Your task to perform on an android device: Open settings Image 0: 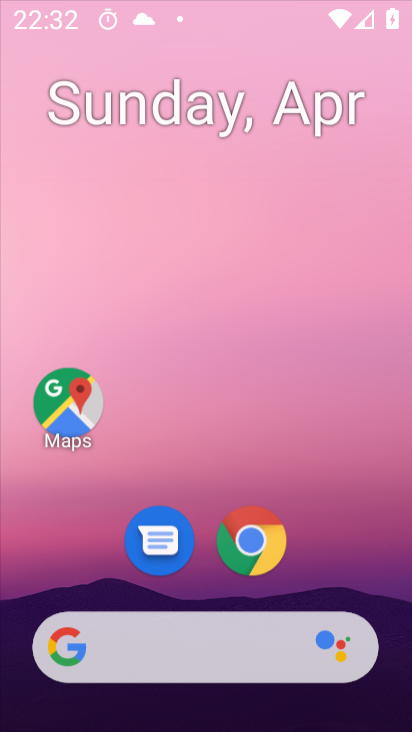
Step 0: click (324, 249)
Your task to perform on an android device: Open settings Image 1: 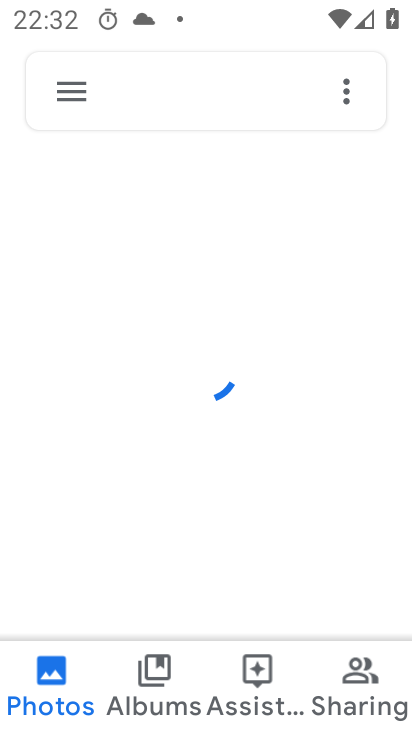
Step 1: press back button
Your task to perform on an android device: Open settings Image 2: 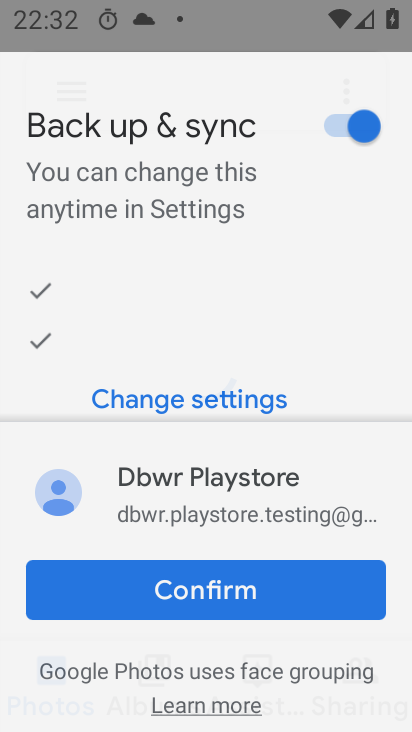
Step 2: press home button
Your task to perform on an android device: Open settings Image 3: 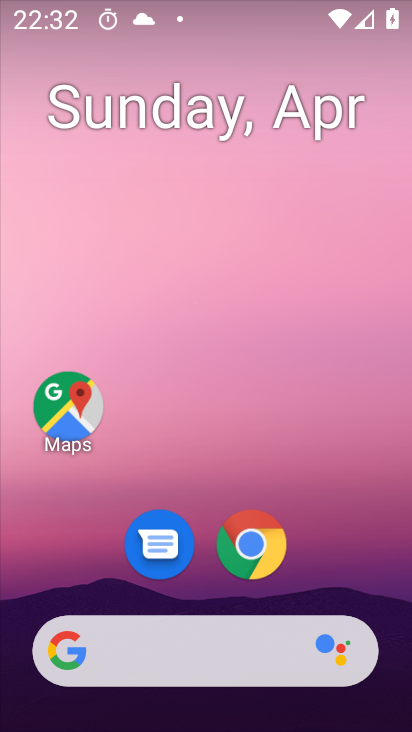
Step 3: drag from (316, 573) to (340, 209)
Your task to perform on an android device: Open settings Image 4: 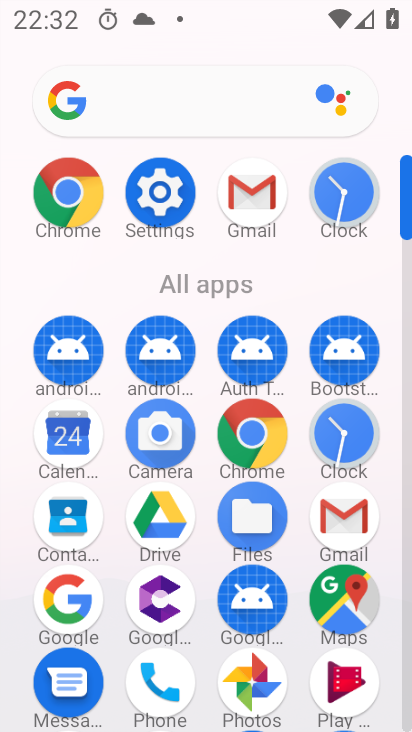
Step 4: click (154, 177)
Your task to perform on an android device: Open settings Image 5: 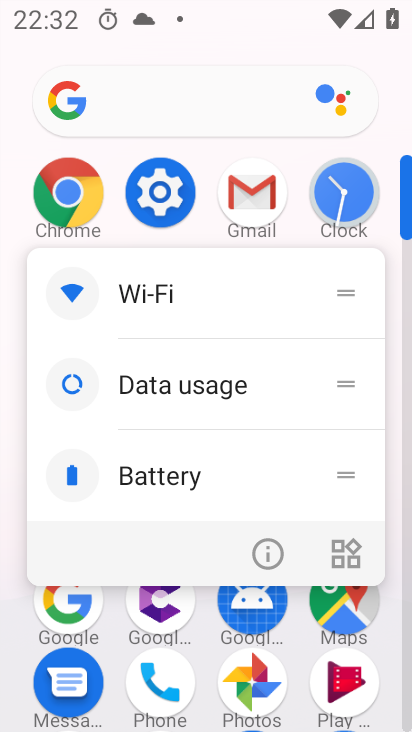
Step 5: click (159, 186)
Your task to perform on an android device: Open settings Image 6: 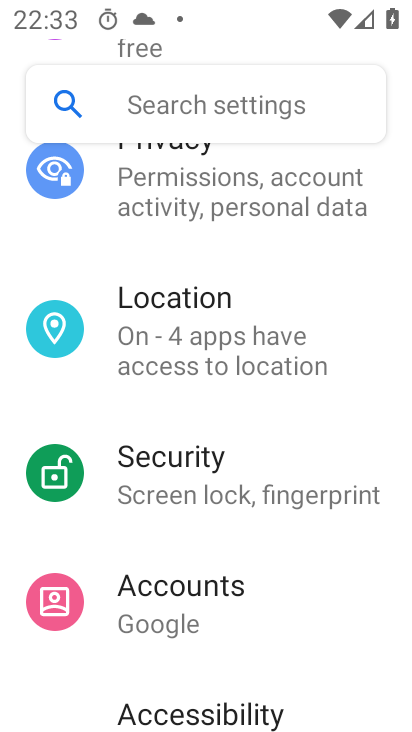
Step 6: task complete